Your task to perform on an android device: Go to Maps Image 0: 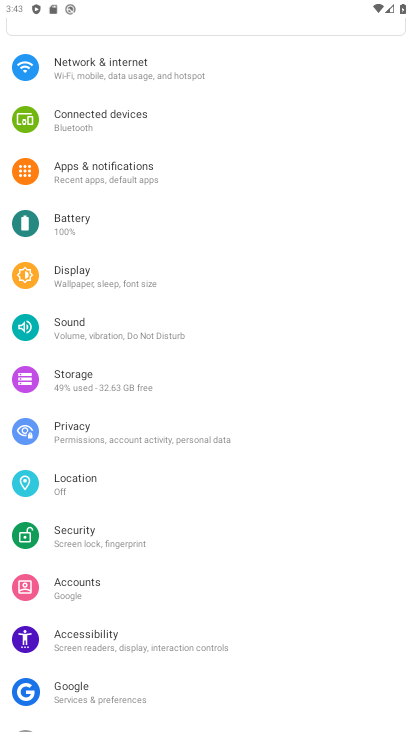
Step 0: press home button
Your task to perform on an android device: Go to Maps Image 1: 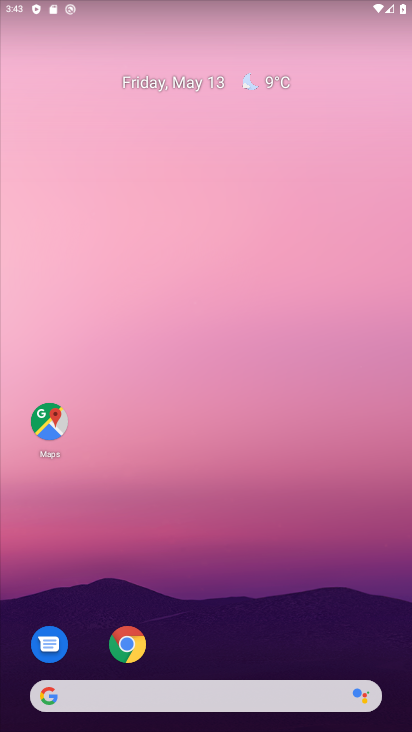
Step 1: click (50, 431)
Your task to perform on an android device: Go to Maps Image 2: 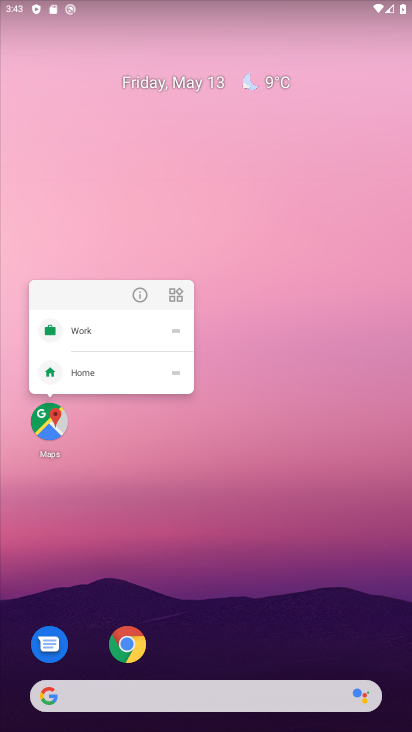
Step 2: click (42, 429)
Your task to perform on an android device: Go to Maps Image 3: 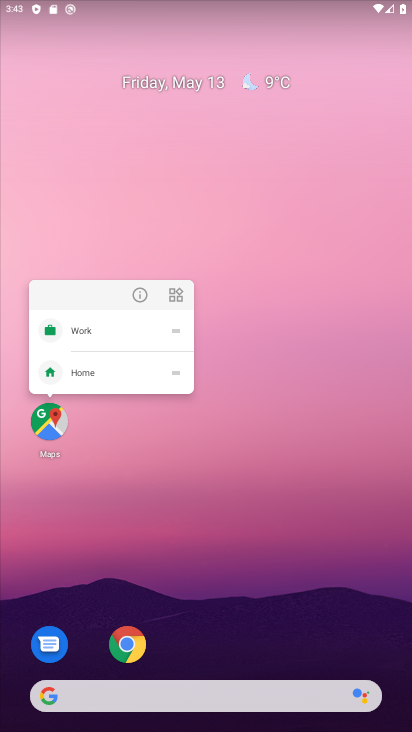
Step 3: click (62, 434)
Your task to perform on an android device: Go to Maps Image 4: 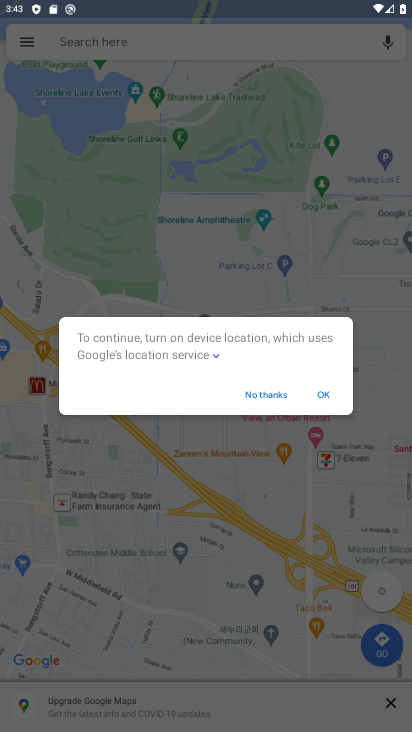
Step 4: click (325, 395)
Your task to perform on an android device: Go to Maps Image 5: 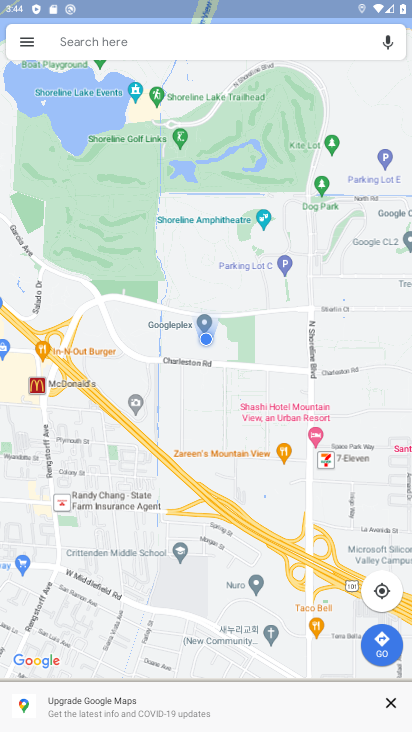
Step 5: task complete